Your task to perform on an android device: turn on location history Image 0: 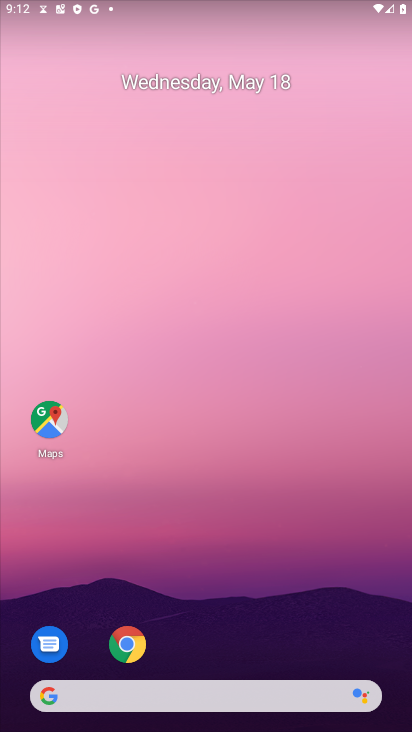
Step 0: drag from (292, 604) to (180, 249)
Your task to perform on an android device: turn on location history Image 1: 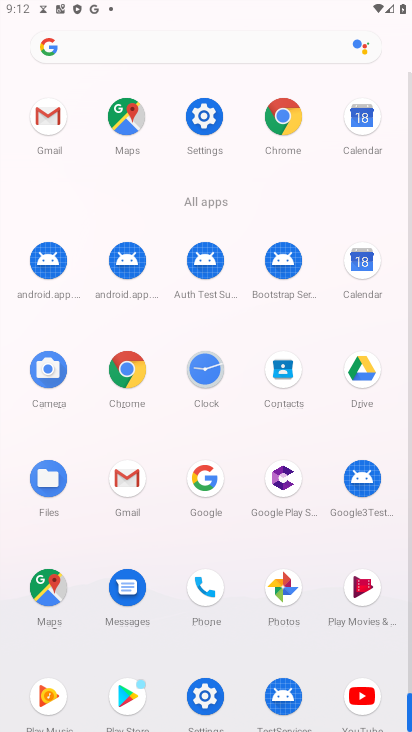
Step 1: click (203, 698)
Your task to perform on an android device: turn on location history Image 2: 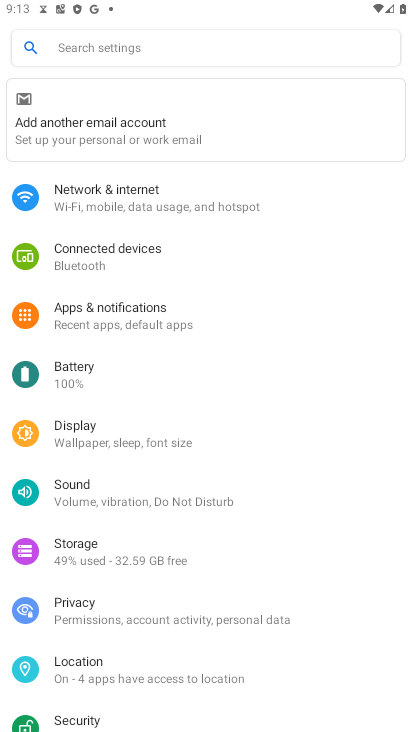
Step 2: drag from (118, 528) to (149, 458)
Your task to perform on an android device: turn on location history Image 3: 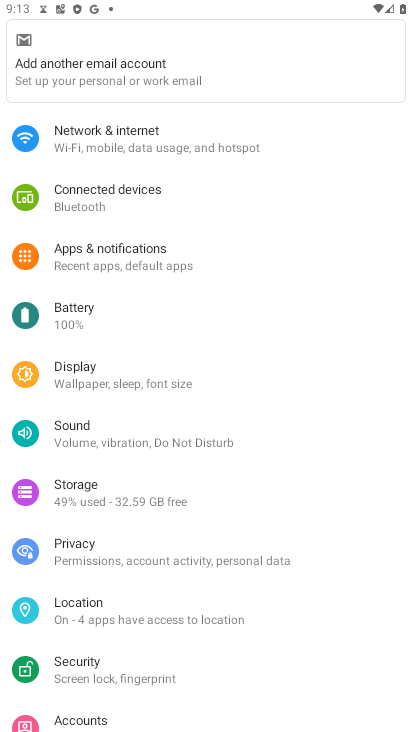
Step 3: click (110, 616)
Your task to perform on an android device: turn on location history Image 4: 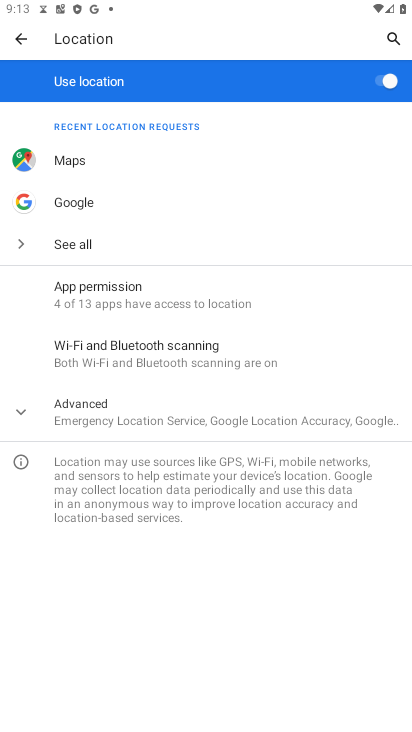
Step 4: click (137, 418)
Your task to perform on an android device: turn on location history Image 5: 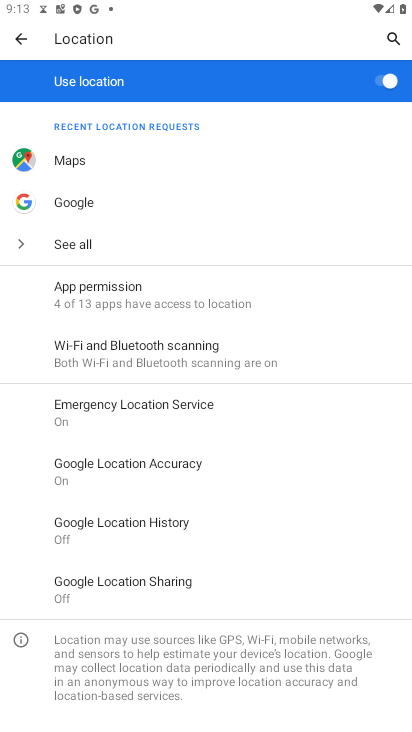
Step 5: click (148, 524)
Your task to perform on an android device: turn on location history Image 6: 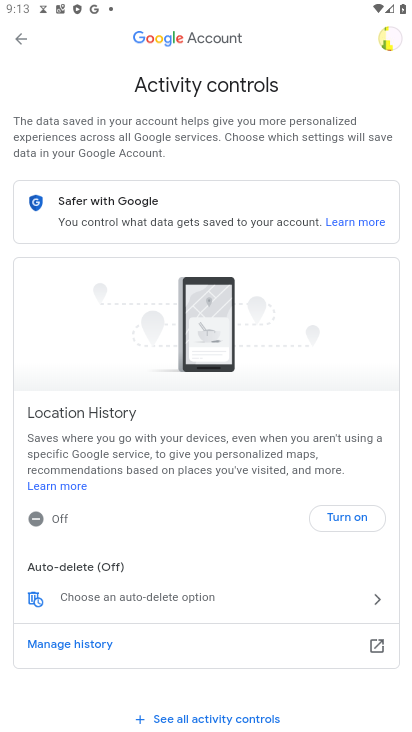
Step 6: click (342, 516)
Your task to perform on an android device: turn on location history Image 7: 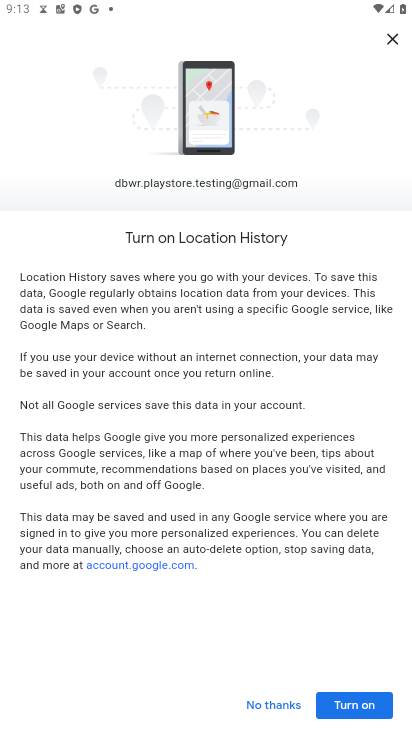
Step 7: click (345, 703)
Your task to perform on an android device: turn on location history Image 8: 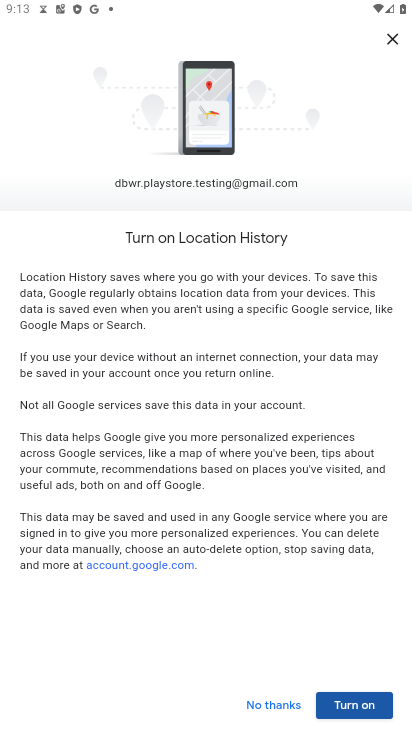
Step 8: click (345, 703)
Your task to perform on an android device: turn on location history Image 9: 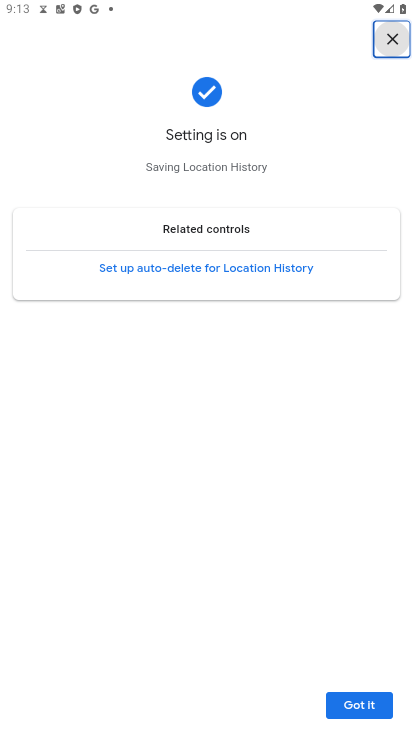
Step 9: click (352, 706)
Your task to perform on an android device: turn on location history Image 10: 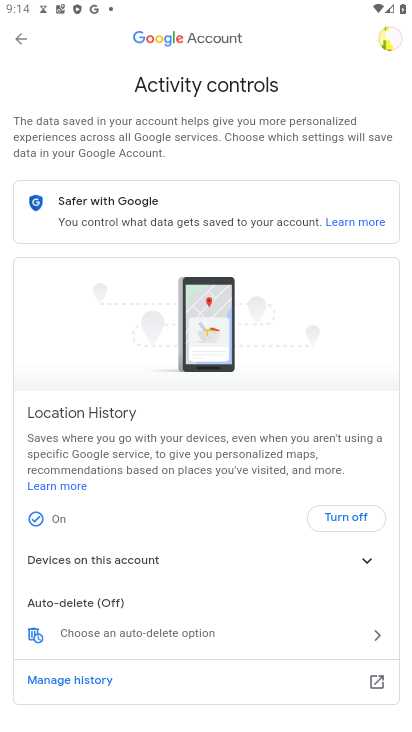
Step 10: task complete